Your task to perform on an android device: Open Yahoo.com Image 0: 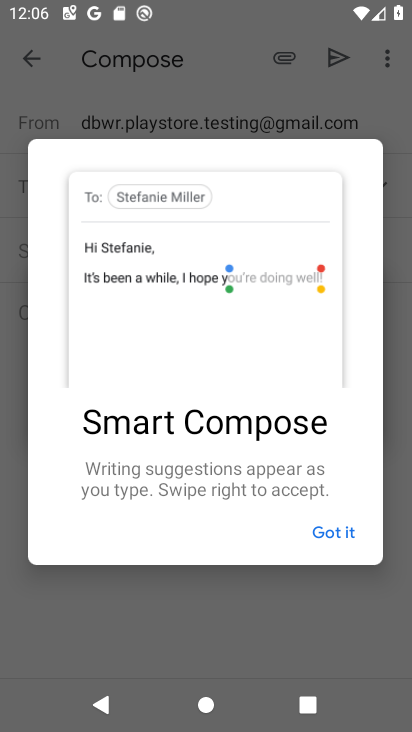
Step 0: press home button
Your task to perform on an android device: Open Yahoo.com Image 1: 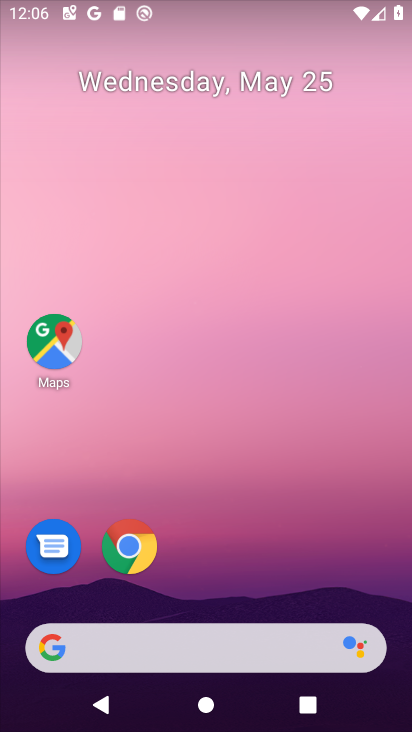
Step 1: click (138, 554)
Your task to perform on an android device: Open Yahoo.com Image 2: 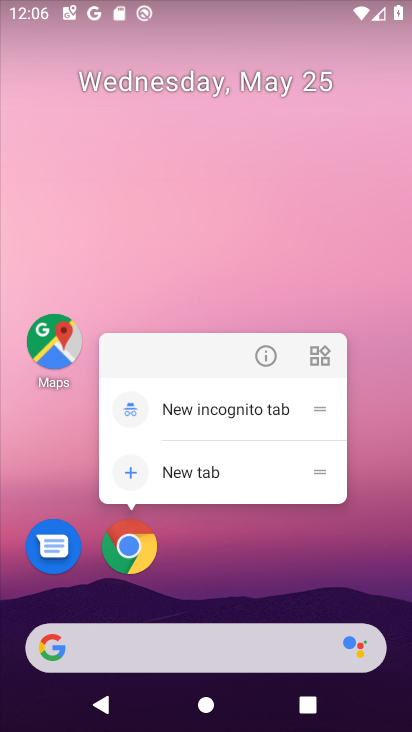
Step 2: click (129, 548)
Your task to perform on an android device: Open Yahoo.com Image 3: 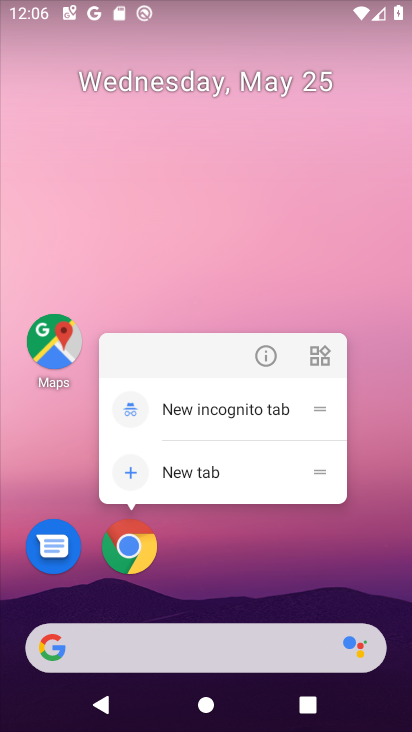
Step 3: click (130, 548)
Your task to perform on an android device: Open Yahoo.com Image 4: 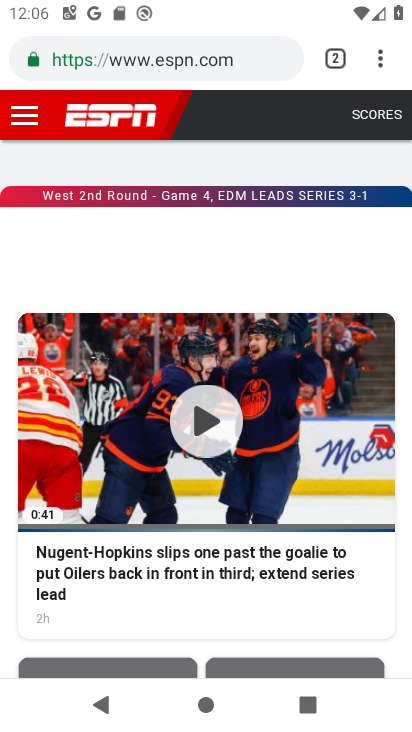
Step 4: click (187, 65)
Your task to perform on an android device: Open Yahoo.com Image 5: 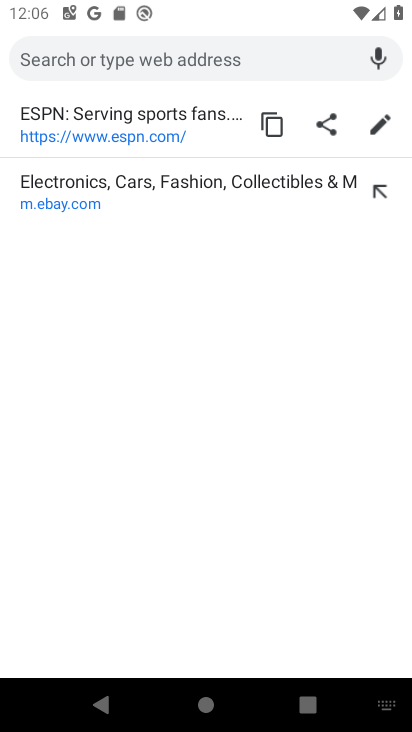
Step 5: type "yahoo.com"
Your task to perform on an android device: Open Yahoo.com Image 6: 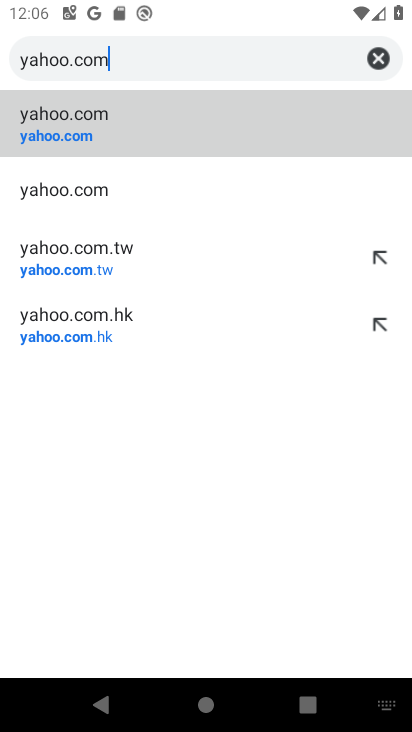
Step 6: click (101, 122)
Your task to perform on an android device: Open Yahoo.com Image 7: 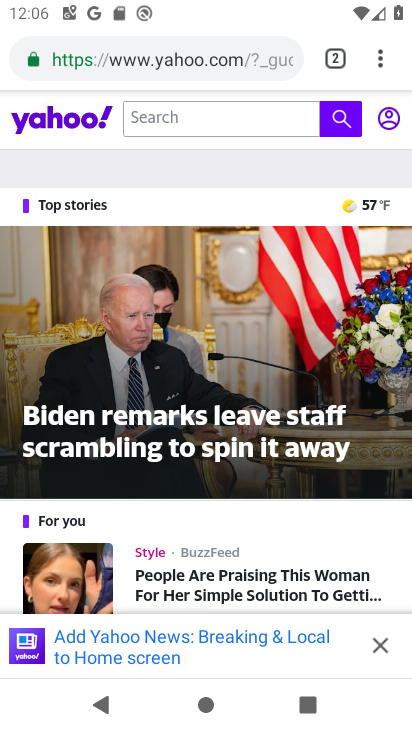
Step 7: task complete